Your task to perform on an android device: check data usage Image 0: 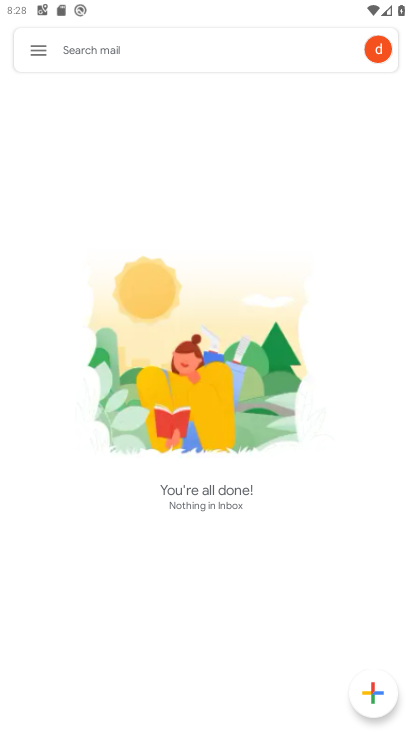
Step 0: press home button
Your task to perform on an android device: check data usage Image 1: 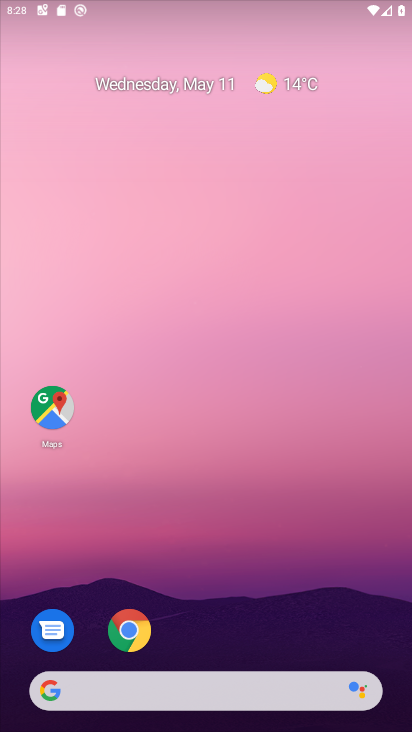
Step 1: drag from (0, 706) to (238, 145)
Your task to perform on an android device: check data usage Image 2: 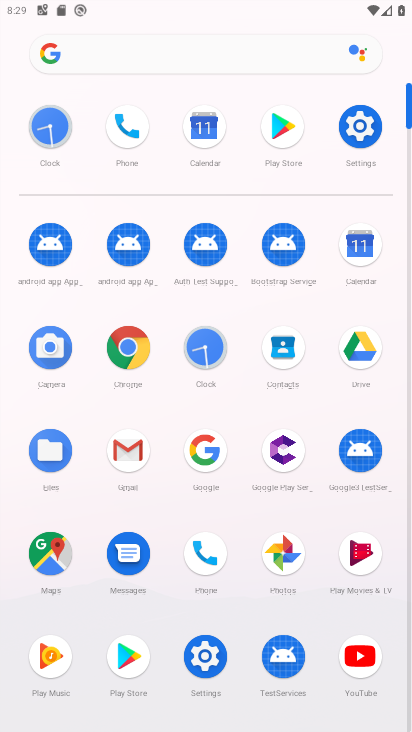
Step 2: click (200, 660)
Your task to perform on an android device: check data usage Image 3: 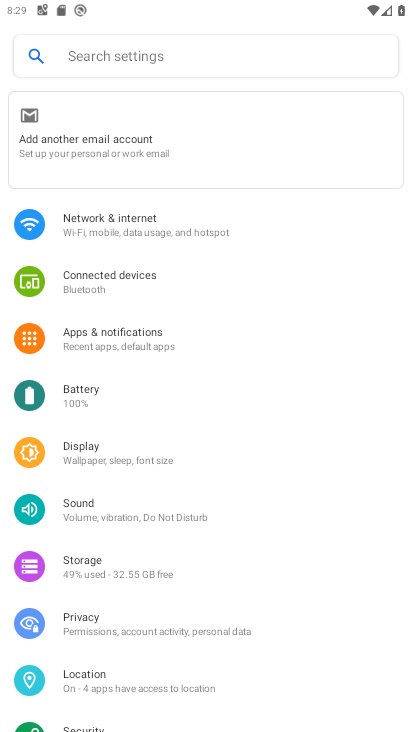
Step 3: click (181, 217)
Your task to perform on an android device: check data usage Image 4: 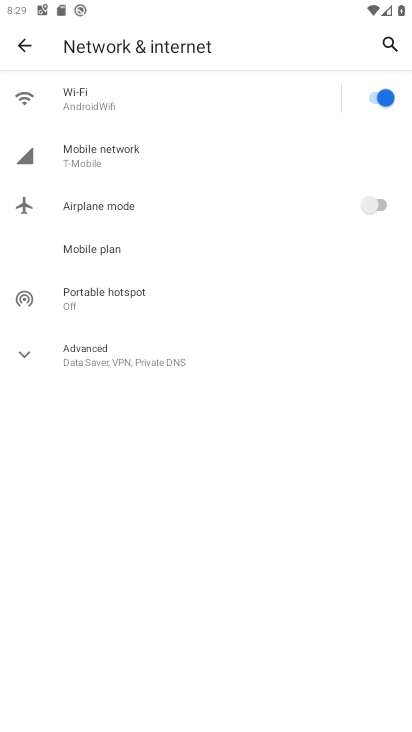
Step 4: click (146, 153)
Your task to perform on an android device: check data usage Image 5: 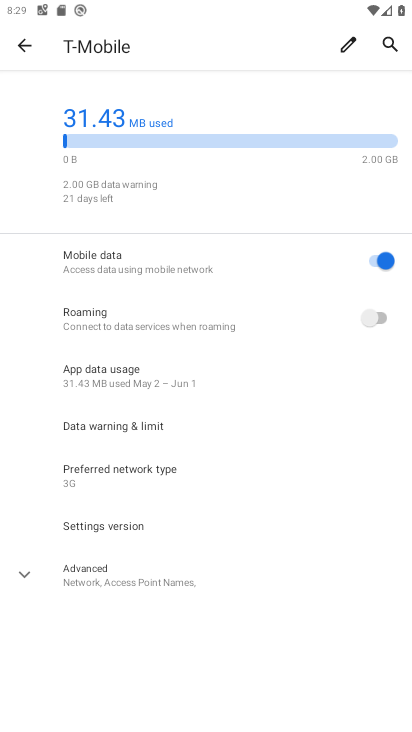
Step 5: task complete